Your task to perform on an android device: turn on wifi Image 0: 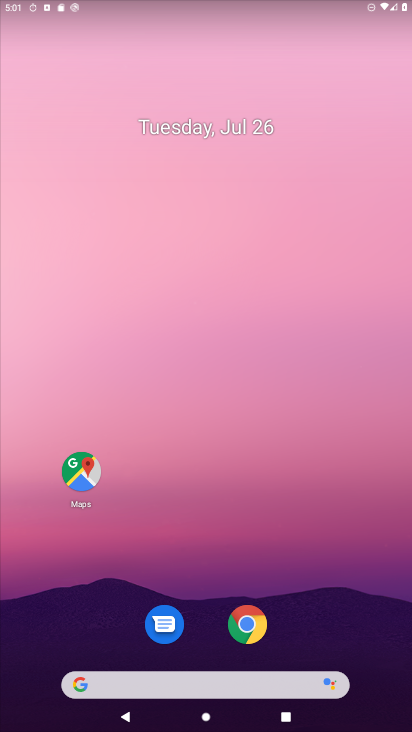
Step 0: drag from (138, 685) to (235, 37)
Your task to perform on an android device: turn on wifi Image 1: 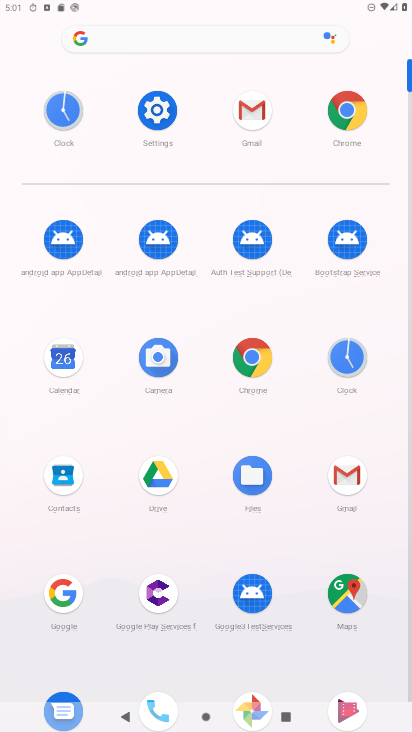
Step 1: click (161, 113)
Your task to perform on an android device: turn on wifi Image 2: 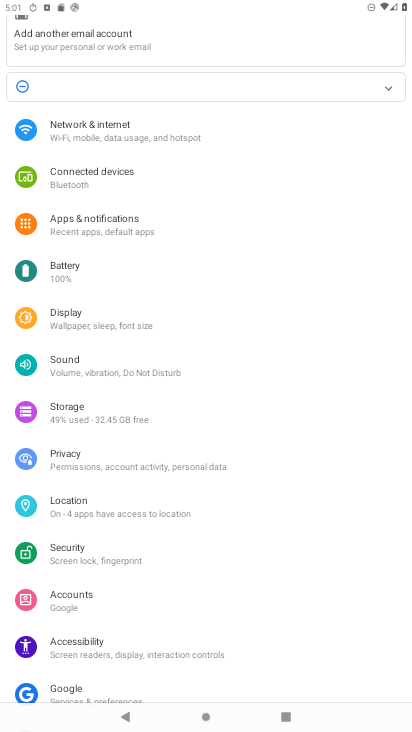
Step 2: click (135, 122)
Your task to perform on an android device: turn on wifi Image 3: 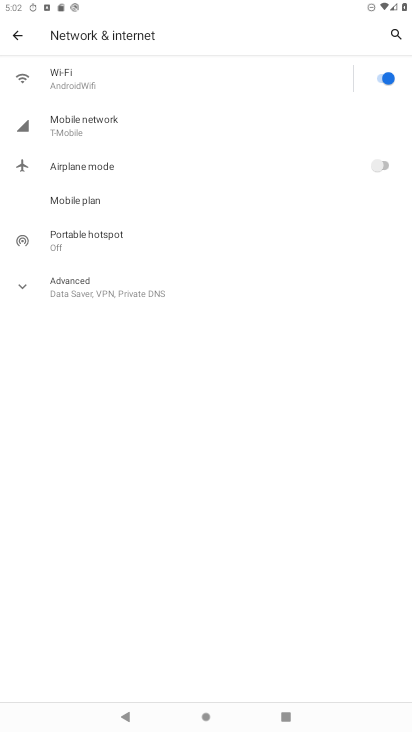
Step 3: task complete